Your task to perform on an android device: turn on showing notifications on the lock screen Image 0: 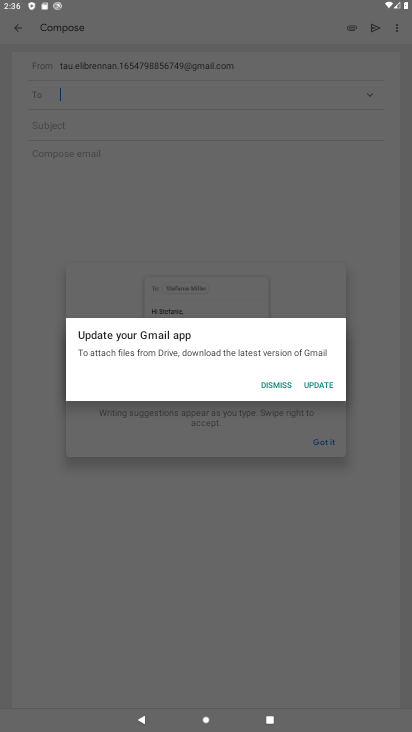
Step 0: click (266, 373)
Your task to perform on an android device: turn on showing notifications on the lock screen Image 1: 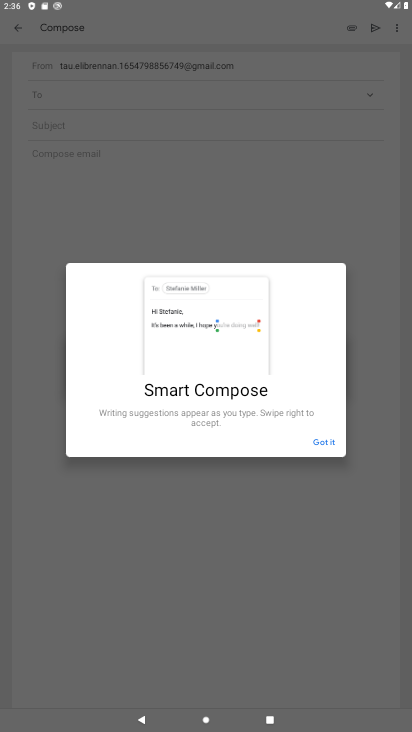
Step 1: press back button
Your task to perform on an android device: turn on showing notifications on the lock screen Image 2: 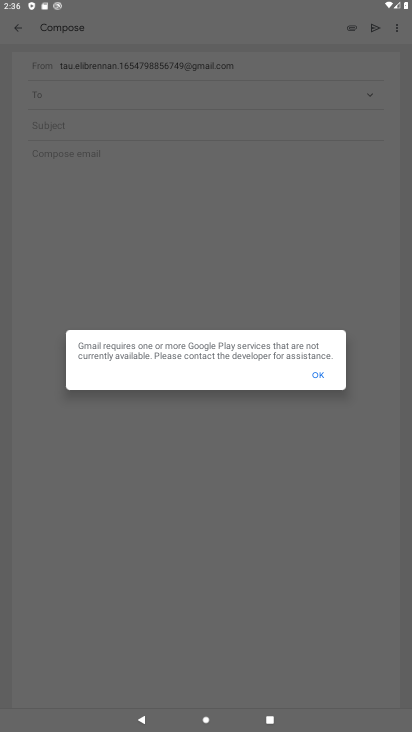
Step 2: click (323, 444)
Your task to perform on an android device: turn on showing notifications on the lock screen Image 3: 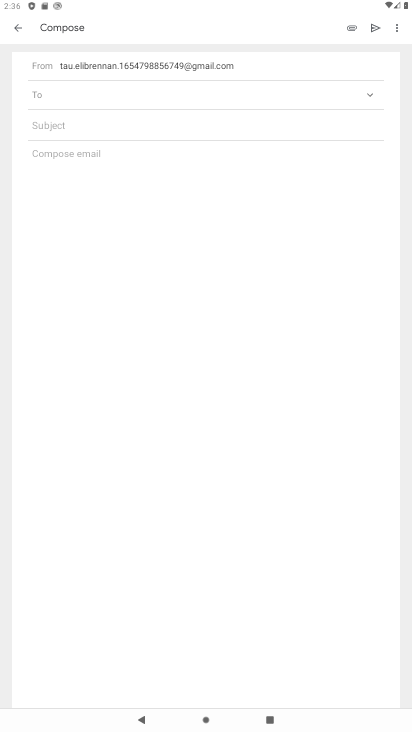
Step 3: press back button
Your task to perform on an android device: turn on showing notifications on the lock screen Image 4: 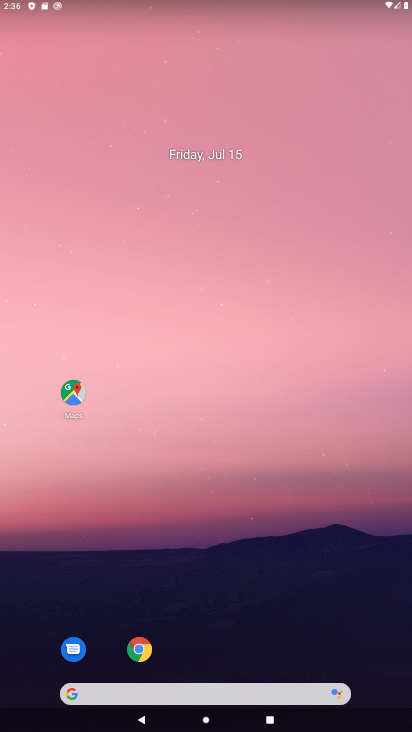
Step 4: drag from (229, 518) to (146, 16)
Your task to perform on an android device: turn on showing notifications on the lock screen Image 5: 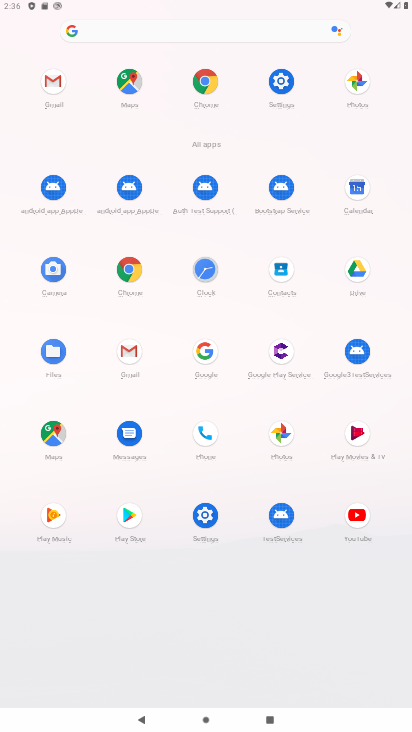
Step 5: click (279, 87)
Your task to perform on an android device: turn on showing notifications on the lock screen Image 6: 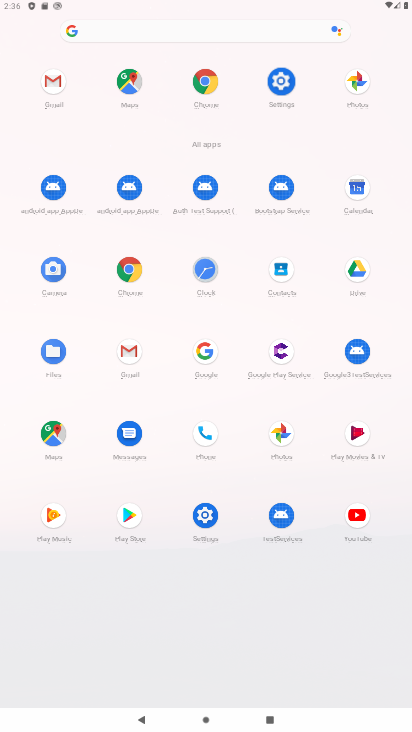
Step 6: click (278, 87)
Your task to perform on an android device: turn on showing notifications on the lock screen Image 7: 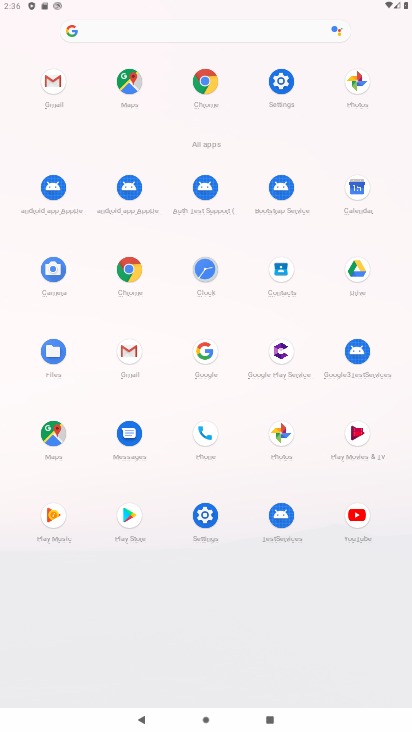
Step 7: click (274, 85)
Your task to perform on an android device: turn on showing notifications on the lock screen Image 8: 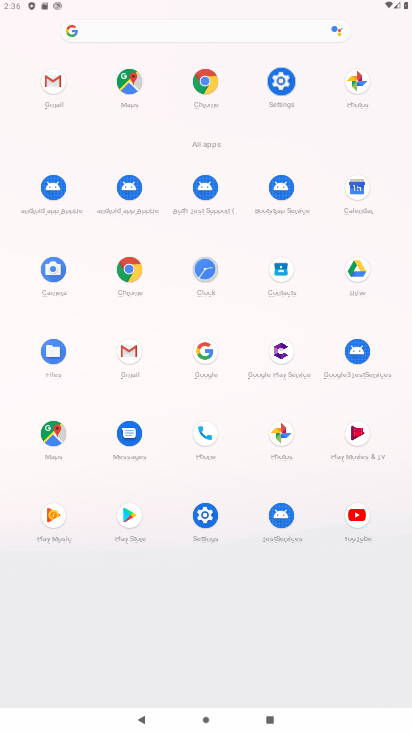
Step 8: click (271, 88)
Your task to perform on an android device: turn on showing notifications on the lock screen Image 9: 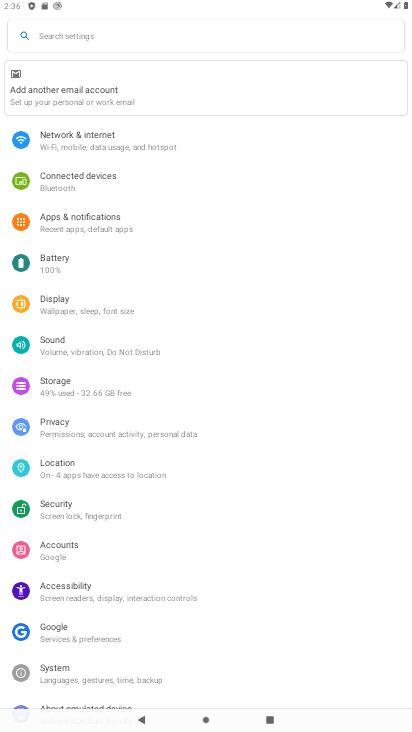
Step 9: click (83, 220)
Your task to perform on an android device: turn on showing notifications on the lock screen Image 10: 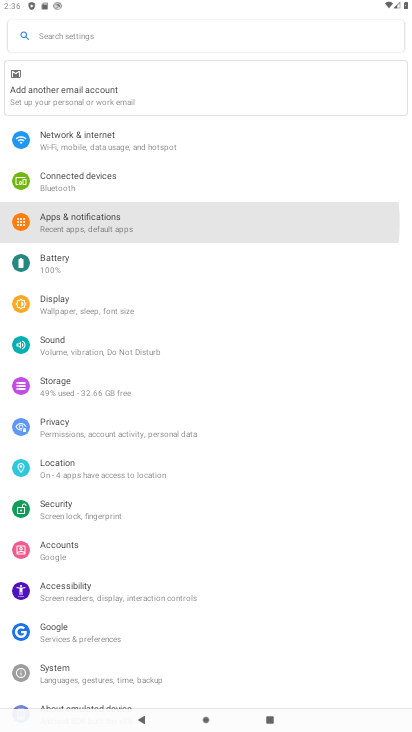
Step 10: click (83, 220)
Your task to perform on an android device: turn on showing notifications on the lock screen Image 11: 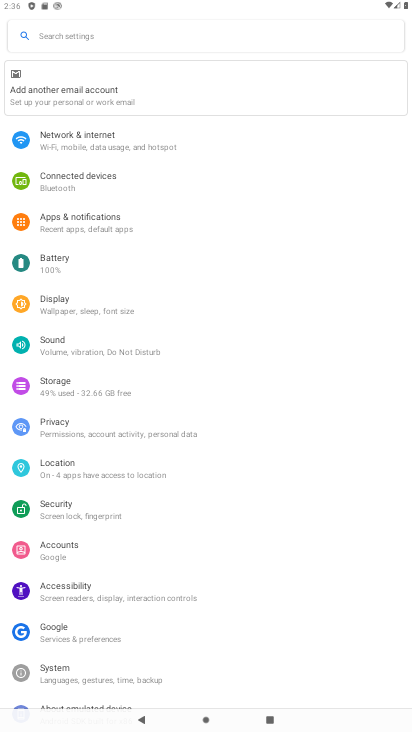
Step 11: click (83, 220)
Your task to perform on an android device: turn on showing notifications on the lock screen Image 12: 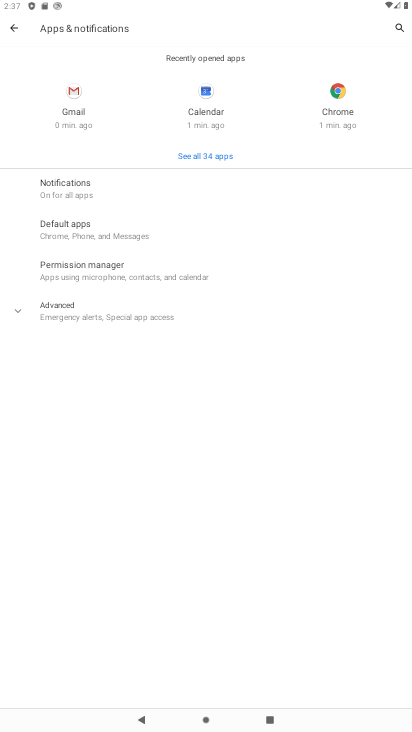
Step 12: click (58, 201)
Your task to perform on an android device: turn on showing notifications on the lock screen Image 13: 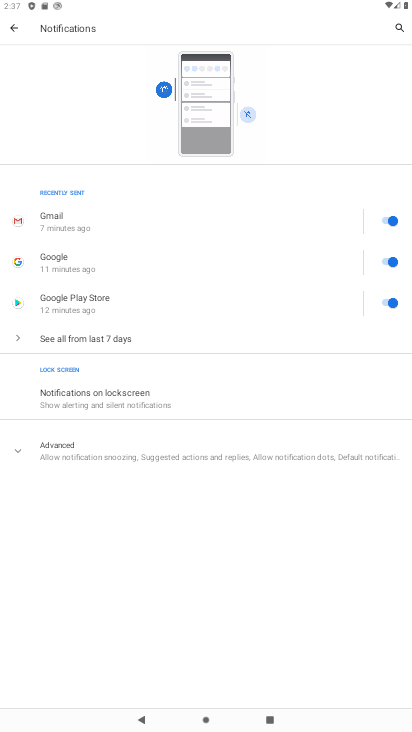
Step 13: click (101, 383)
Your task to perform on an android device: turn on showing notifications on the lock screen Image 14: 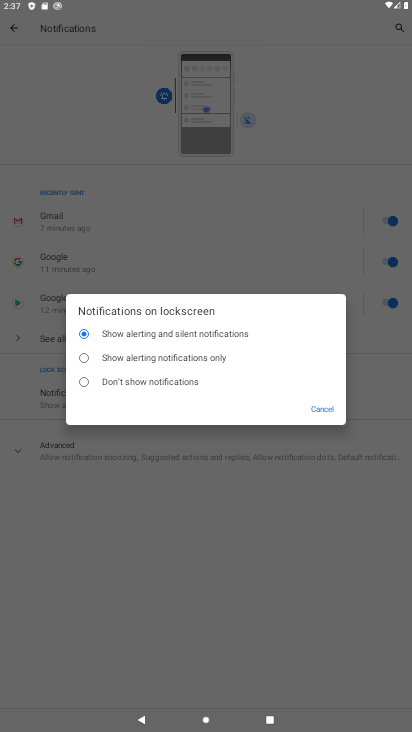
Step 14: click (320, 413)
Your task to perform on an android device: turn on showing notifications on the lock screen Image 15: 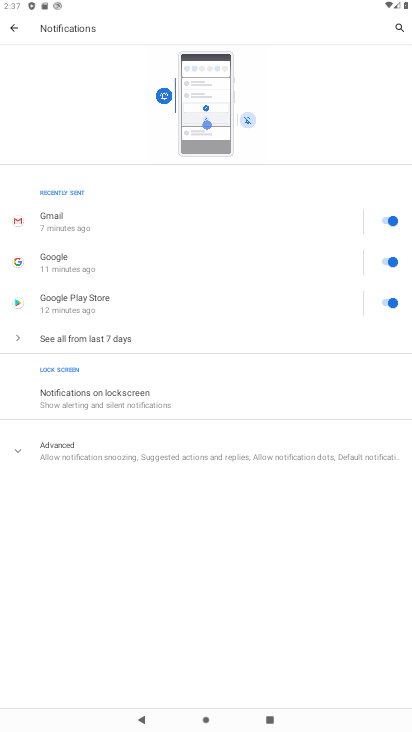
Step 15: task complete